Your task to perform on an android device: Go to Google maps Image 0: 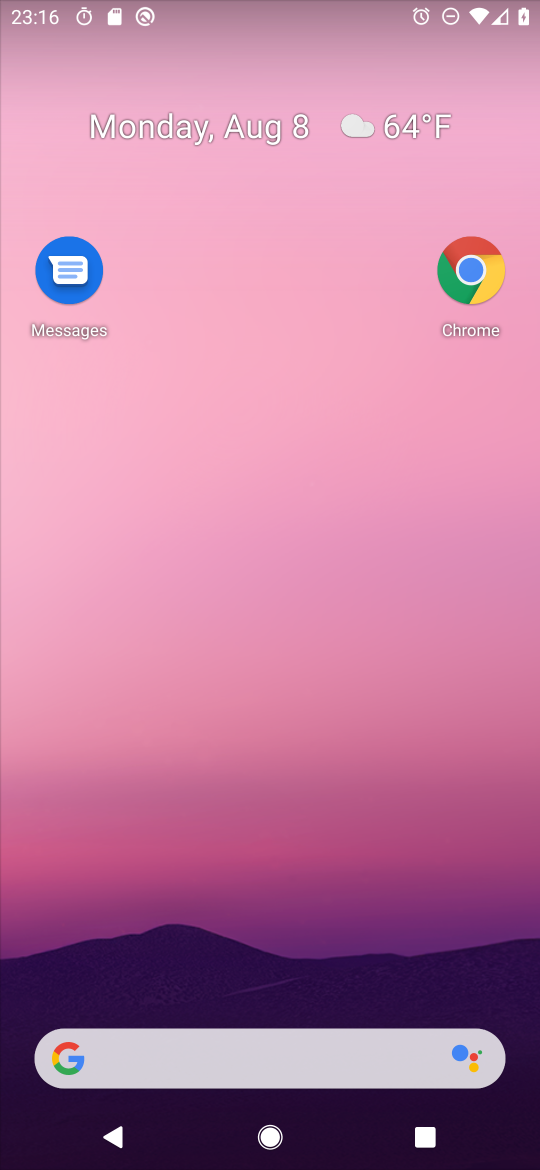
Step 0: drag from (226, 662) to (274, 238)
Your task to perform on an android device: Go to Google maps Image 1: 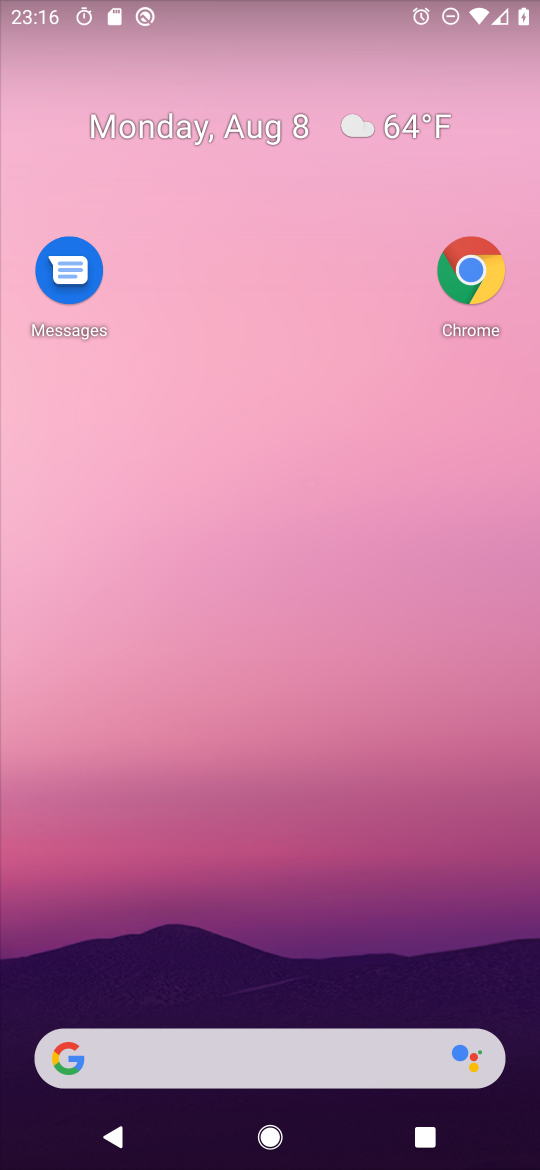
Step 1: drag from (223, 966) to (287, 189)
Your task to perform on an android device: Go to Google maps Image 2: 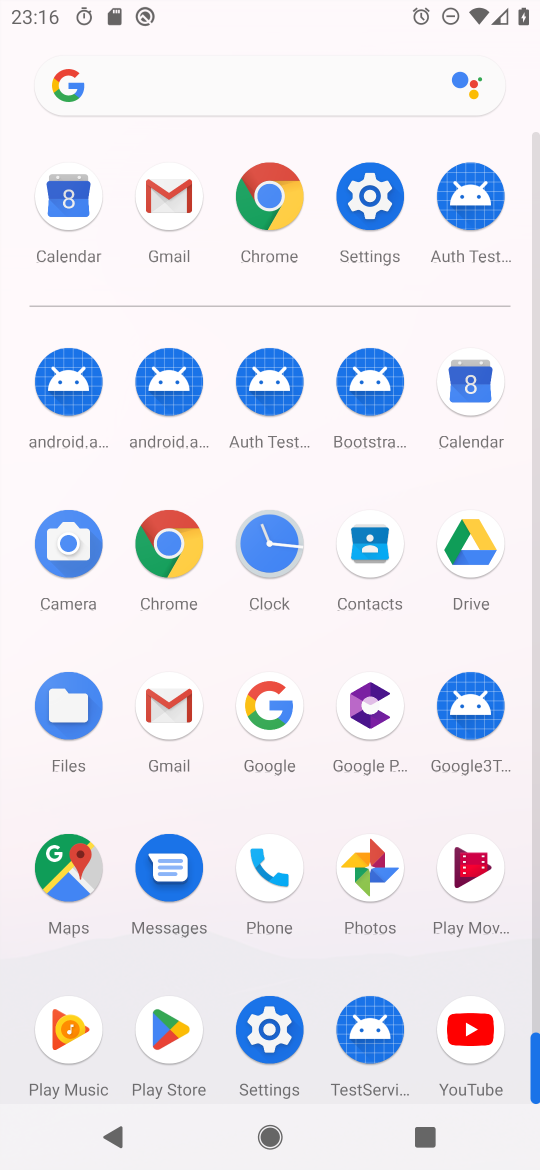
Step 2: click (63, 859)
Your task to perform on an android device: Go to Google maps Image 3: 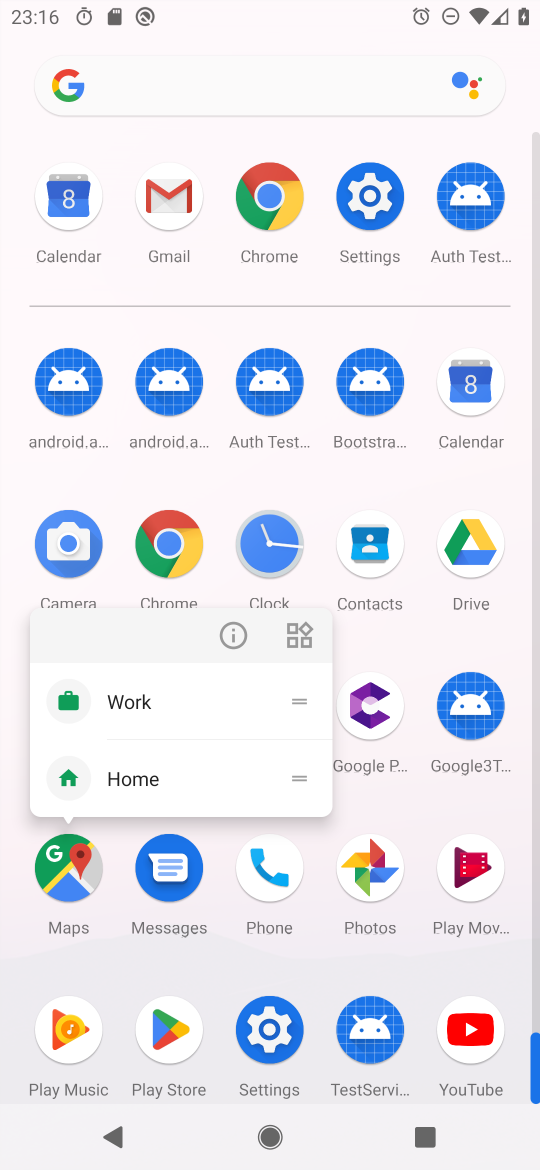
Step 3: click (238, 641)
Your task to perform on an android device: Go to Google maps Image 4: 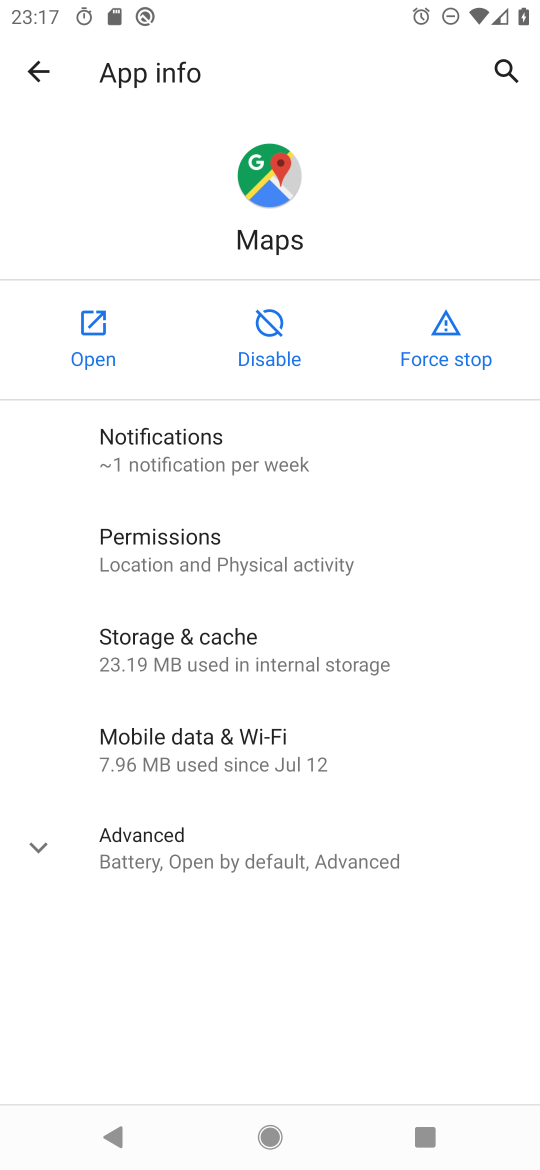
Step 4: click (89, 326)
Your task to perform on an android device: Go to Google maps Image 5: 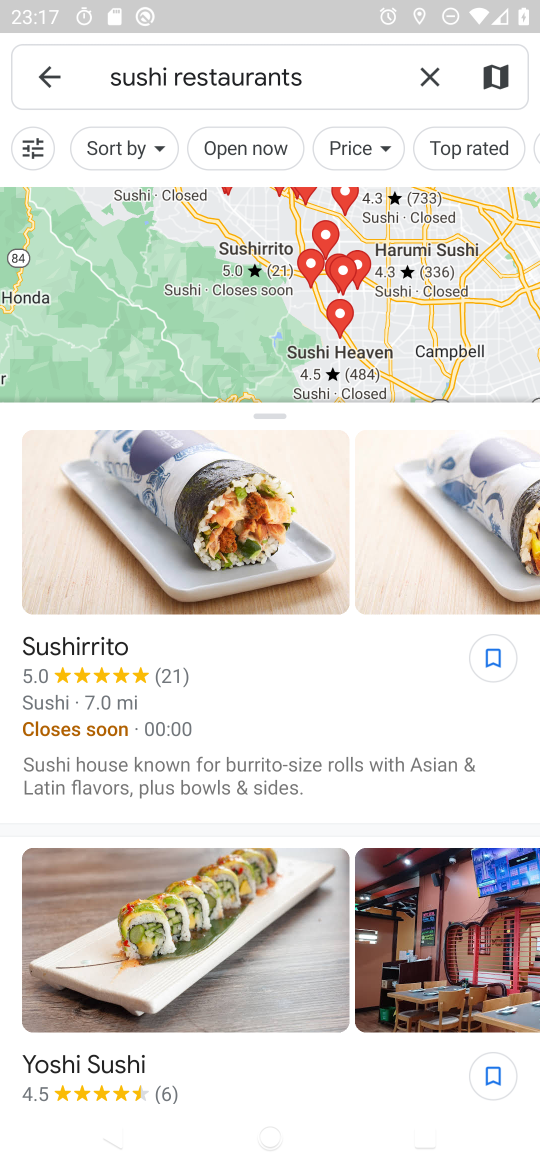
Step 5: click (504, 468)
Your task to perform on an android device: Go to Google maps Image 6: 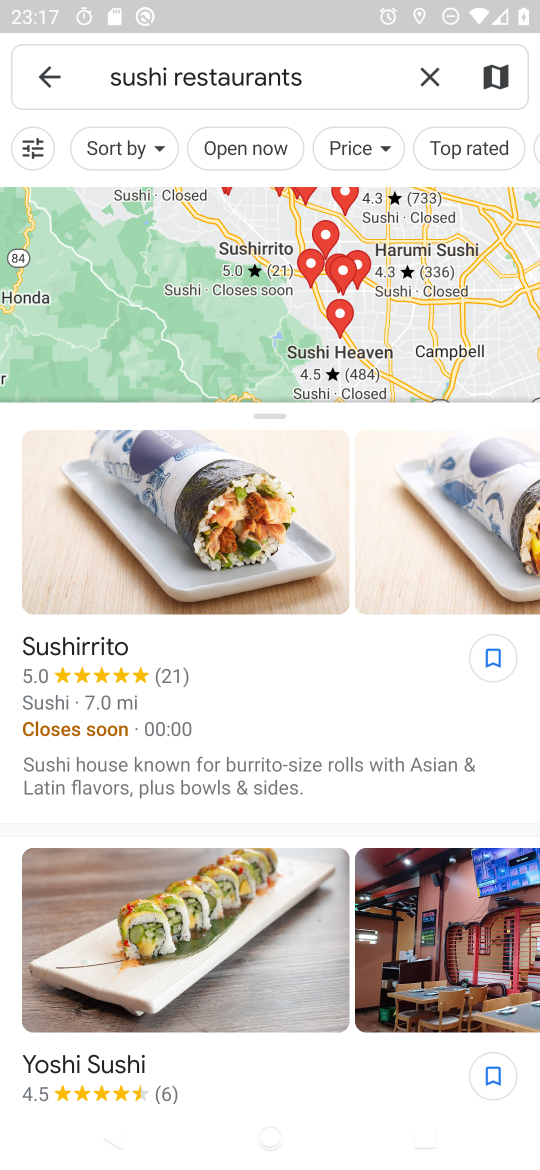
Step 6: task complete